Your task to perform on an android device: What's the news in Guyana? Image 0: 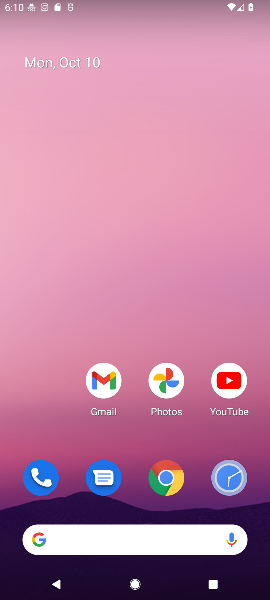
Step 0: click (151, 483)
Your task to perform on an android device: What's the news in Guyana? Image 1: 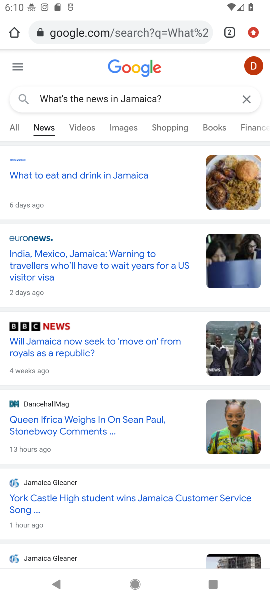
Step 1: click (73, 22)
Your task to perform on an android device: What's the news in Guyana? Image 2: 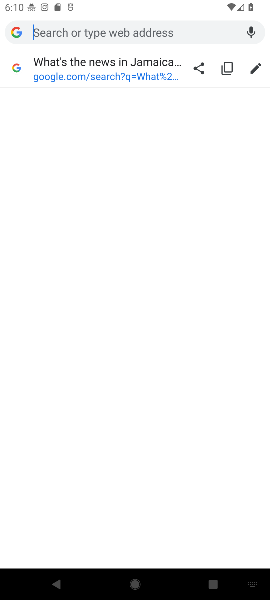
Step 2: type "the news in Guyana?"
Your task to perform on an android device: What's the news in Guyana? Image 3: 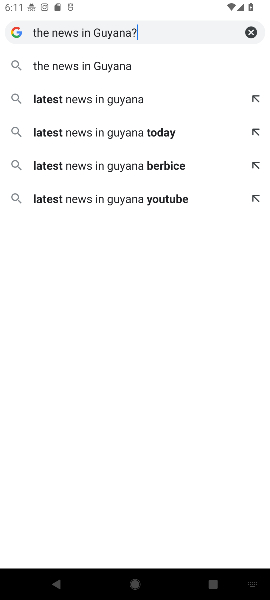
Step 3: type ""
Your task to perform on an android device: What's the news in Guyana? Image 4: 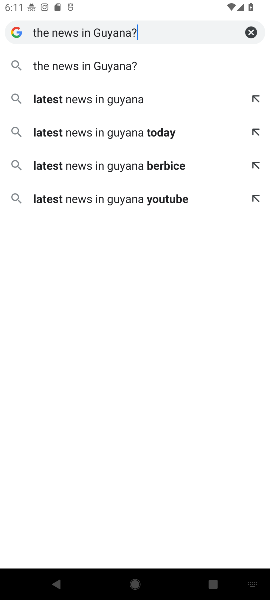
Step 4: click (144, 68)
Your task to perform on an android device: What's the news in Guyana? Image 5: 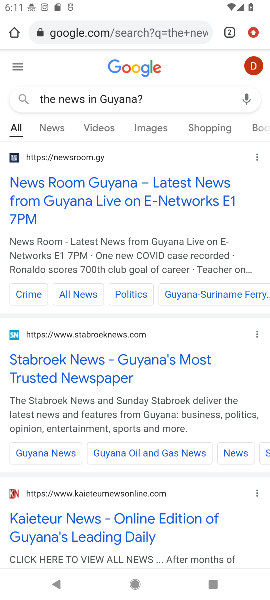
Step 5: click (52, 128)
Your task to perform on an android device: What's the news in Guyana? Image 6: 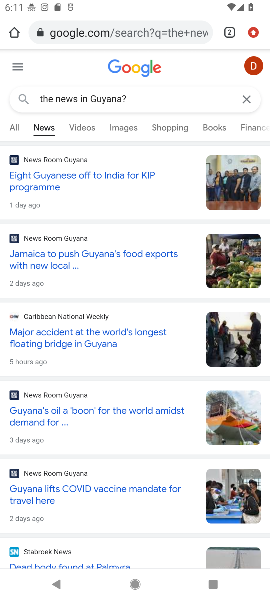
Step 6: task complete